Your task to perform on an android device: open app "Microsoft Excel" Image 0: 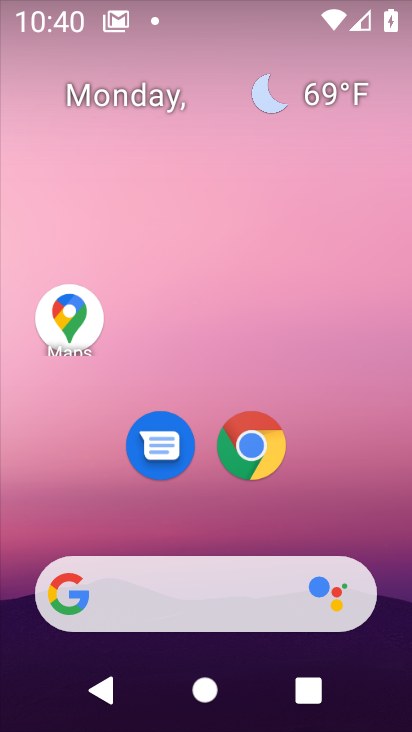
Step 0: drag from (254, 579) to (339, 133)
Your task to perform on an android device: open app "Microsoft Excel" Image 1: 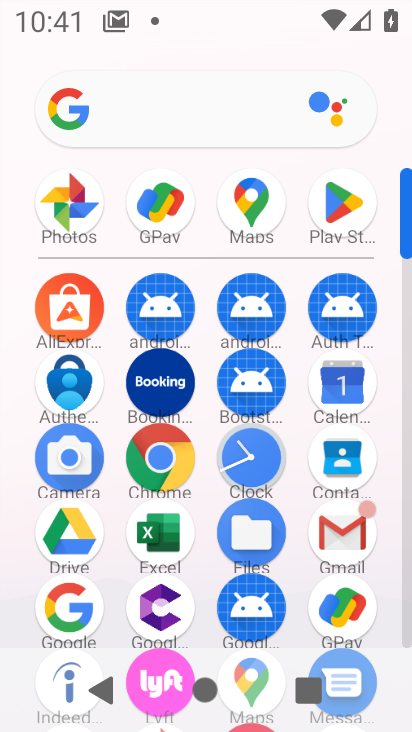
Step 1: click (358, 192)
Your task to perform on an android device: open app "Microsoft Excel" Image 2: 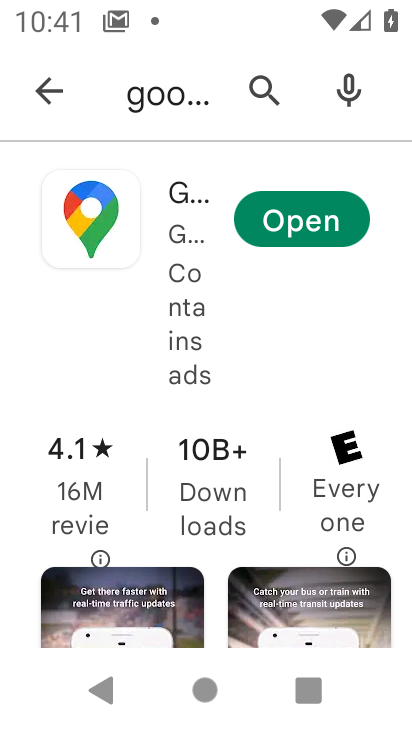
Step 2: click (37, 99)
Your task to perform on an android device: open app "Microsoft Excel" Image 3: 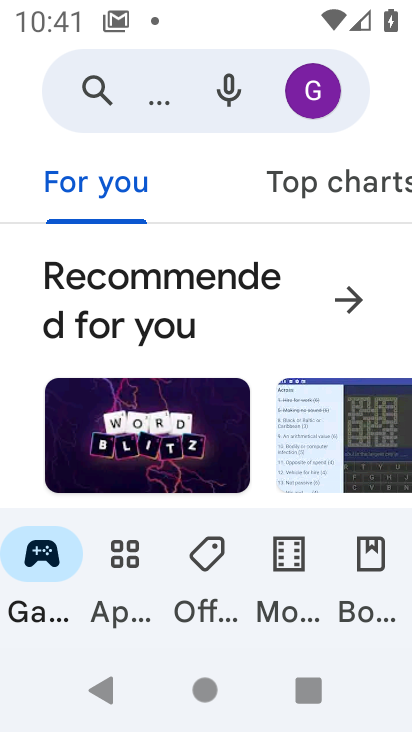
Step 3: click (111, 100)
Your task to perform on an android device: open app "Microsoft Excel" Image 4: 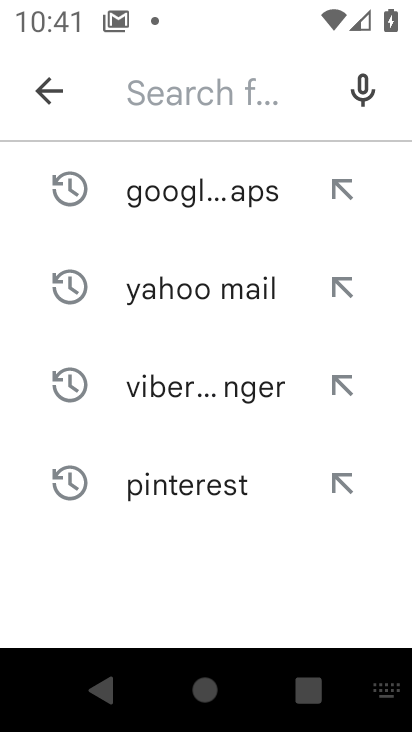
Step 4: type "Microsoft Excel"
Your task to perform on an android device: open app "Microsoft Excel" Image 5: 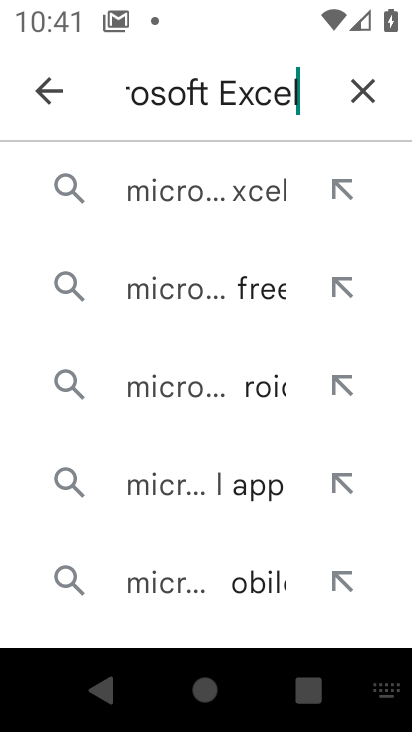
Step 5: type ""
Your task to perform on an android device: open app "Microsoft Excel" Image 6: 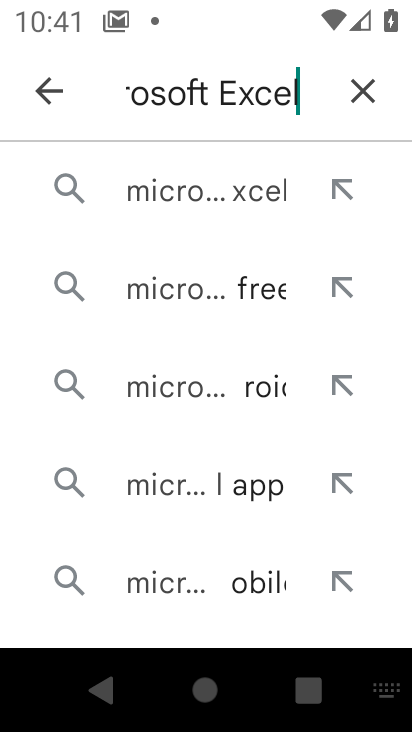
Step 6: click (271, 197)
Your task to perform on an android device: open app "Microsoft Excel" Image 7: 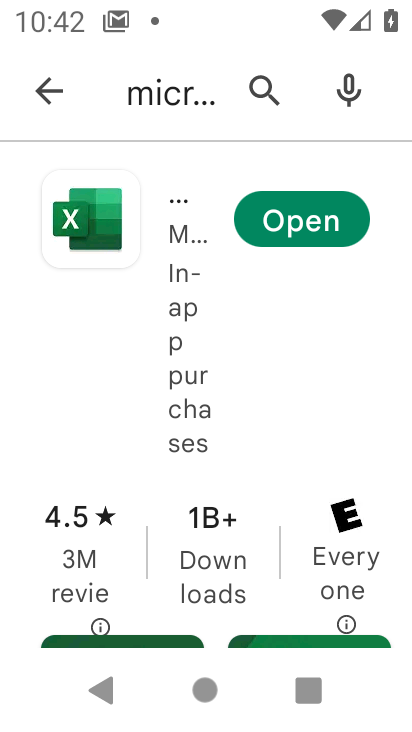
Step 7: click (328, 227)
Your task to perform on an android device: open app "Microsoft Excel" Image 8: 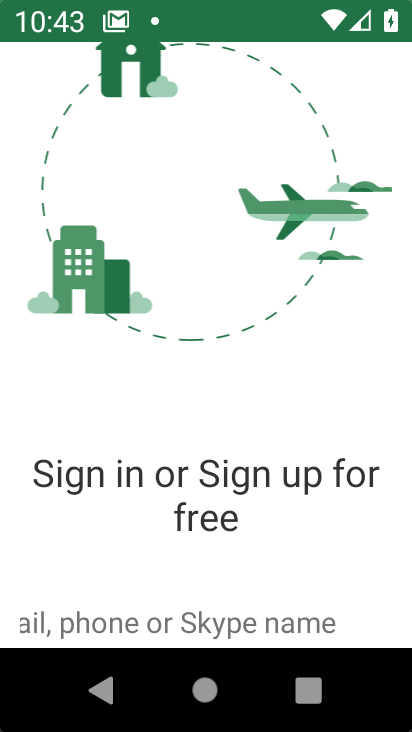
Step 8: task complete